Your task to perform on an android device: Is it going to rain this weekend? Image 0: 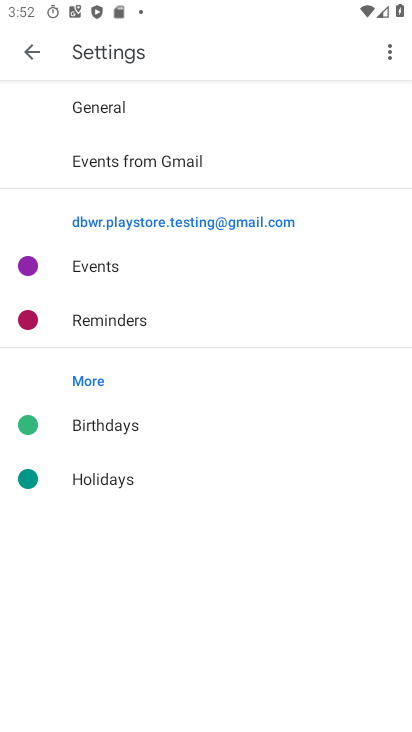
Step 0: press home button
Your task to perform on an android device: Is it going to rain this weekend? Image 1: 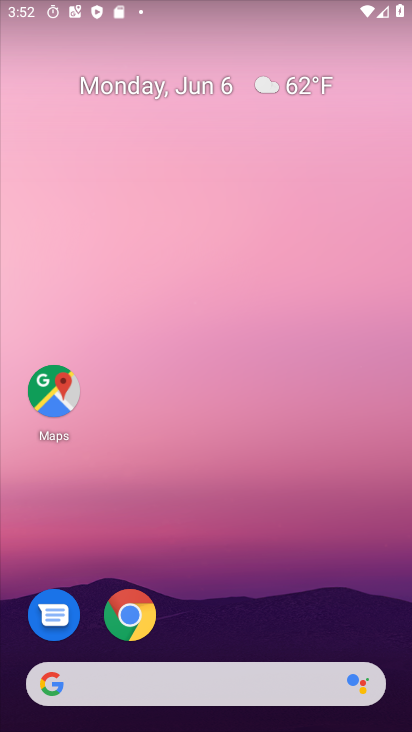
Step 1: drag from (37, 295) to (407, 298)
Your task to perform on an android device: Is it going to rain this weekend? Image 2: 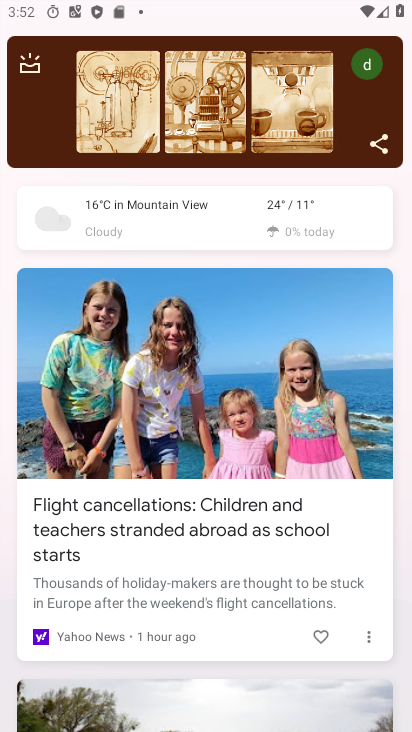
Step 2: click (160, 210)
Your task to perform on an android device: Is it going to rain this weekend? Image 3: 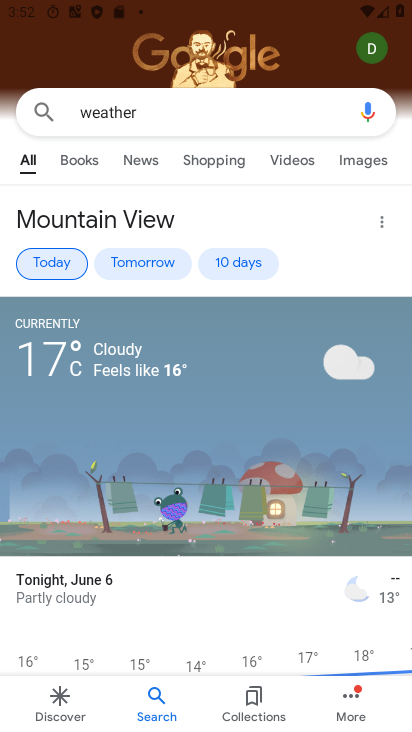
Step 3: click (240, 271)
Your task to perform on an android device: Is it going to rain this weekend? Image 4: 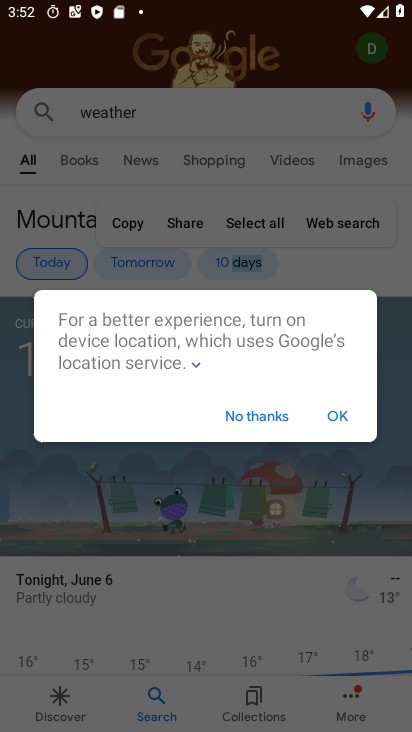
Step 4: click (352, 419)
Your task to perform on an android device: Is it going to rain this weekend? Image 5: 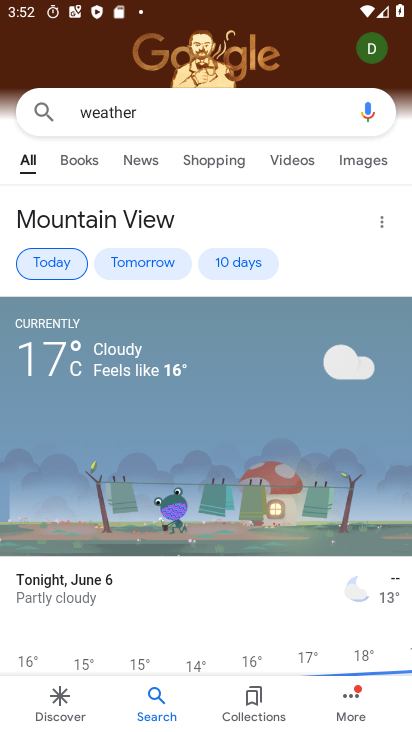
Step 5: click (251, 263)
Your task to perform on an android device: Is it going to rain this weekend? Image 6: 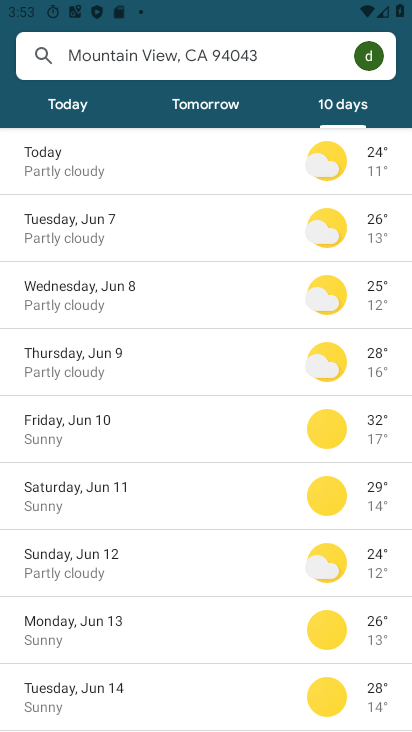
Step 6: task complete